Your task to perform on an android device: Empty the shopping cart on target. Search for razer blade on target, select the first entry, and add it to the cart. Image 0: 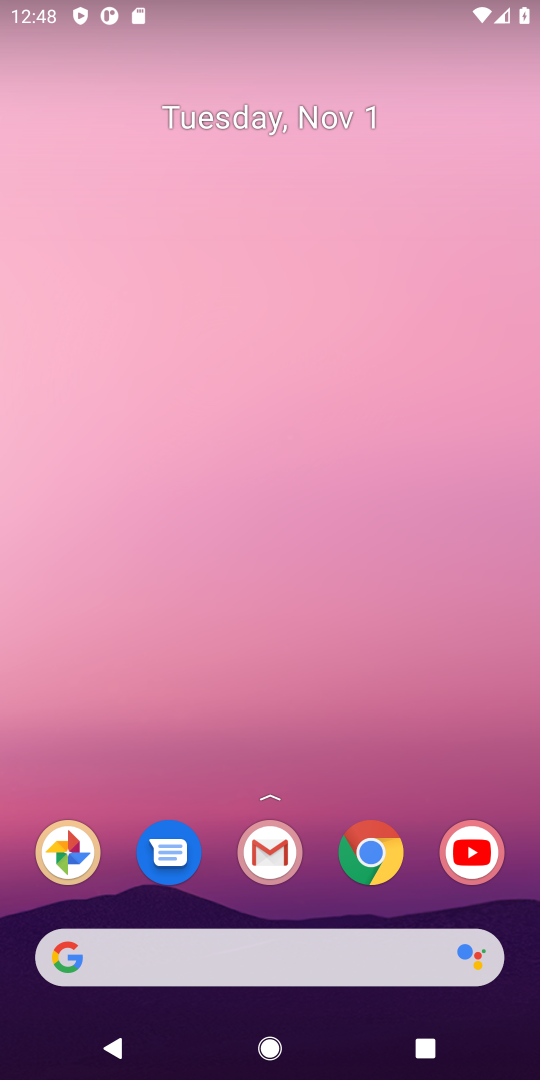
Step 0: click (377, 858)
Your task to perform on an android device: Empty the shopping cart on target. Search for razer blade on target, select the first entry, and add it to the cart. Image 1: 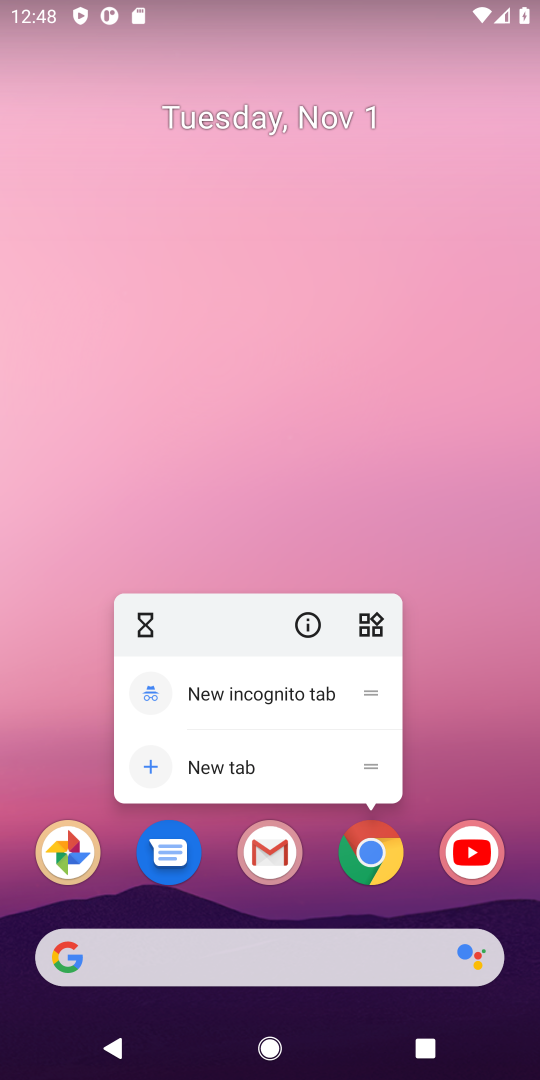
Step 1: click (386, 868)
Your task to perform on an android device: Empty the shopping cart on target. Search for razer blade on target, select the first entry, and add it to the cart. Image 2: 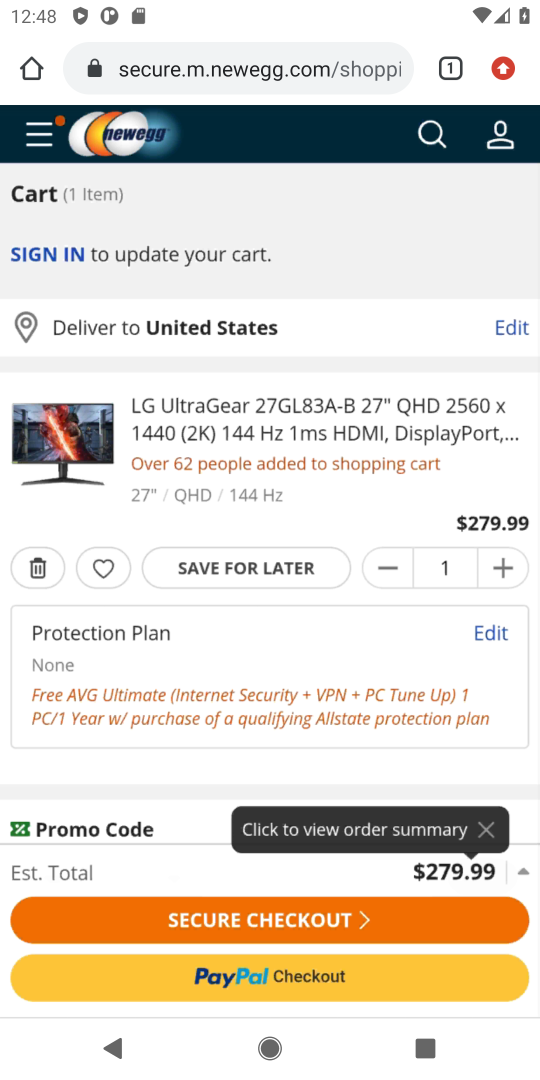
Step 2: click (293, 110)
Your task to perform on an android device: Empty the shopping cart on target. Search for razer blade on target, select the first entry, and add it to the cart. Image 3: 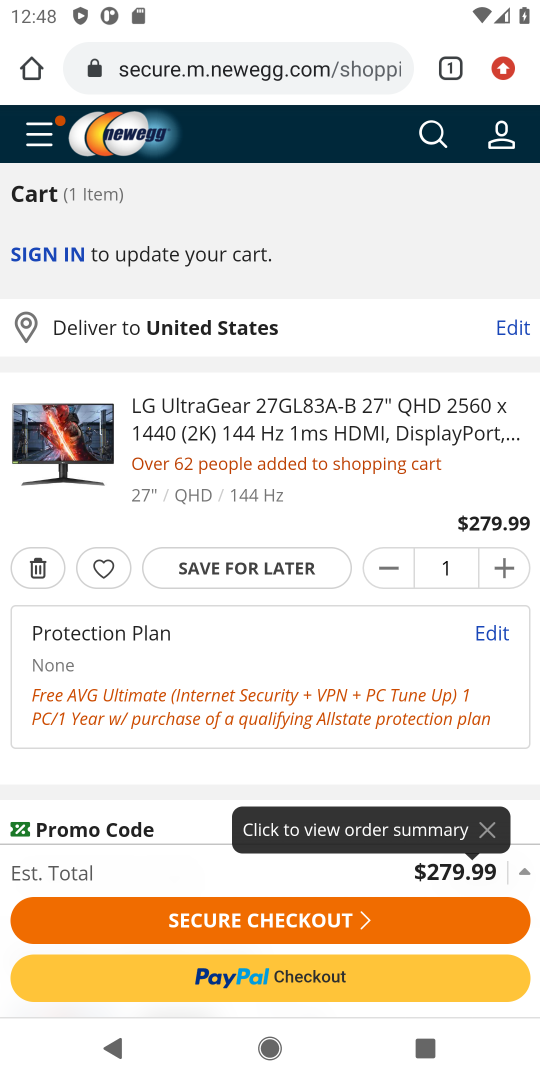
Step 3: click (235, 67)
Your task to perform on an android device: Empty the shopping cart on target. Search for razer blade on target, select the first entry, and add it to the cart. Image 4: 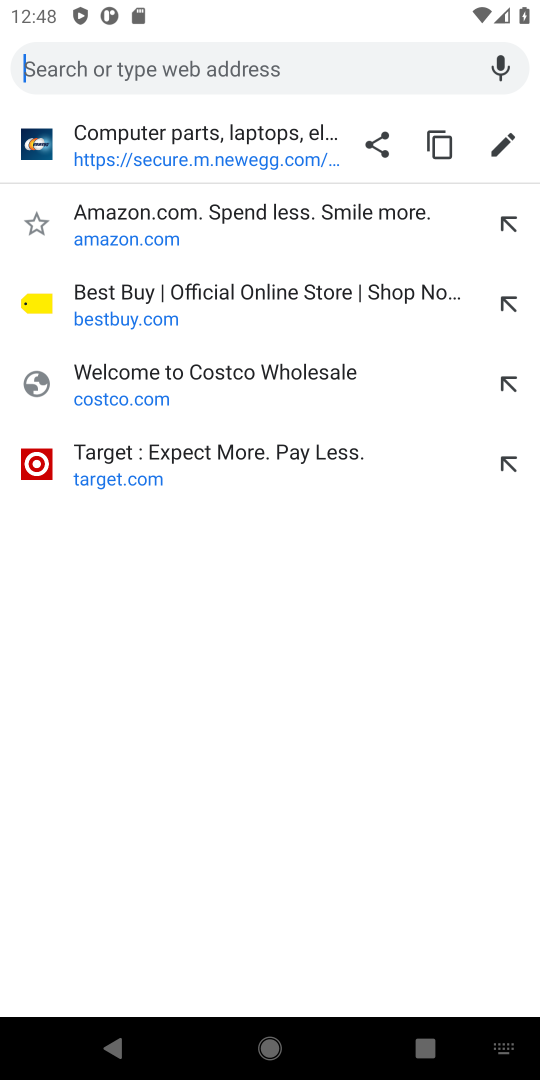
Step 4: type "target"
Your task to perform on an android device: Empty the shopping cart on target. Search for razer blade on target, select the first entry, and add it to the cart. Image 5: 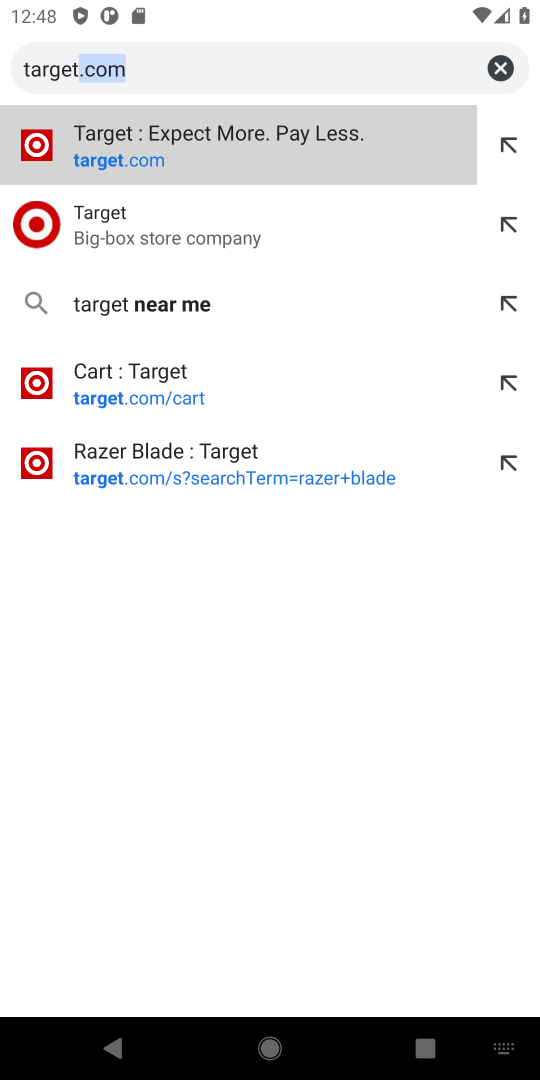
Step 5: press enter
Your task to perform on an android device: Empty the shopping cart on target. Search for razer blade on target, select the first entry, and add it to the cart. Image 6: 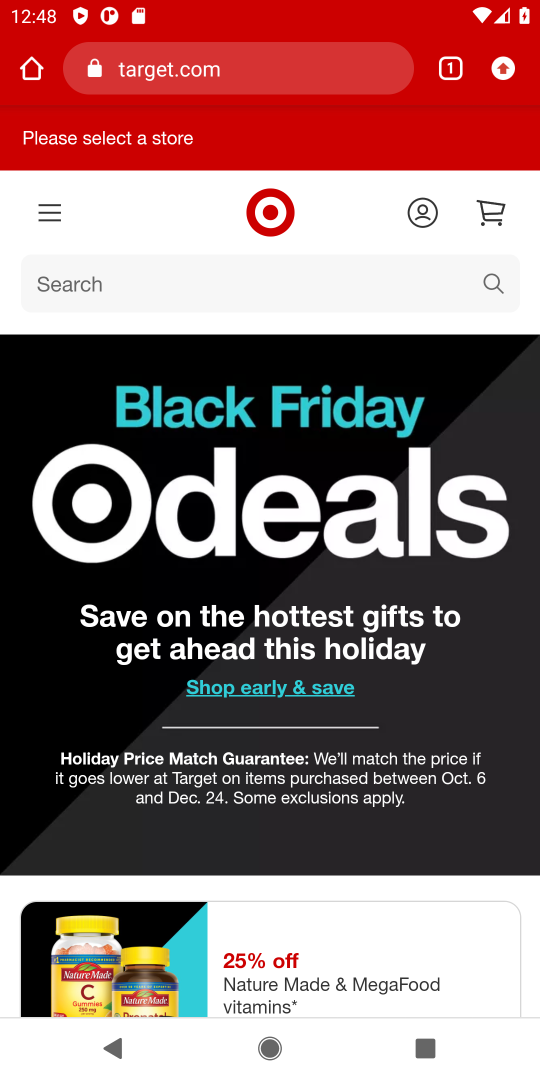
Step 6: drag from (353, 926) to (312, 314)
Your task to perform on an android device: Empty the shopping cart on target. Search for razer blade on target, select the first entry, and add it to the cart. Image 7: 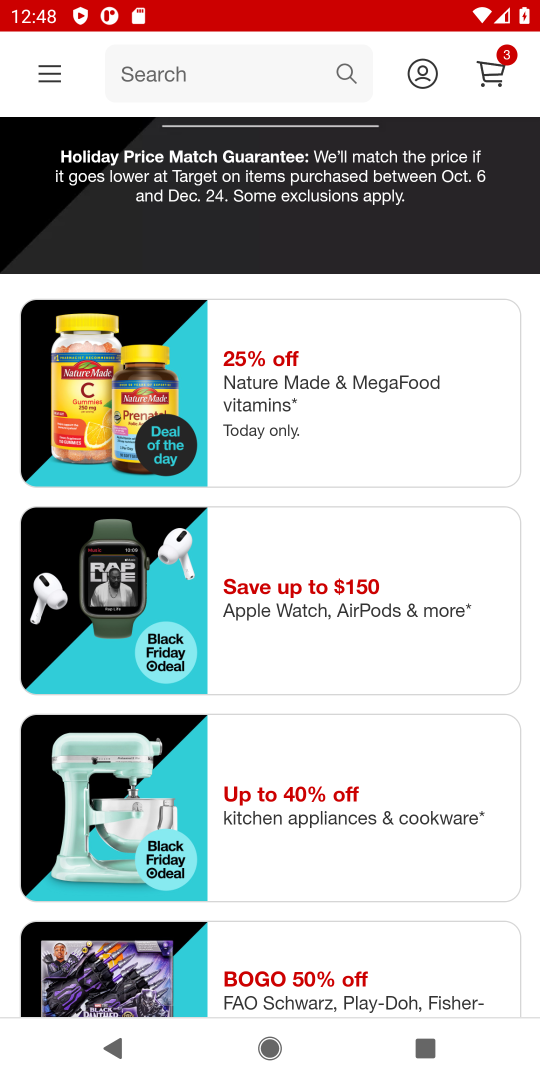
Step 7: click (495, 78)
Your task to perform on an android device: Empty the shopping cart on target. Search for razer blade on target, select the first entry, and add it to the cart. Image 8: 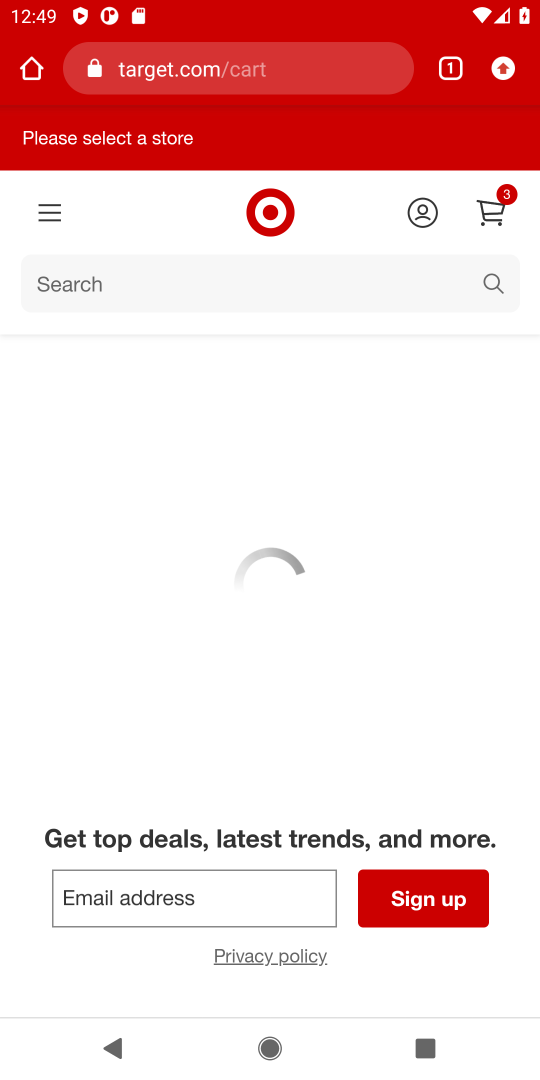
Step 8: drag from (417, 789) to (430, 656)
Your task to perform on an android device: Empty the shopping cart on target. Search for razer blade on target, select the first entry, and add it to the cart. Image 9: 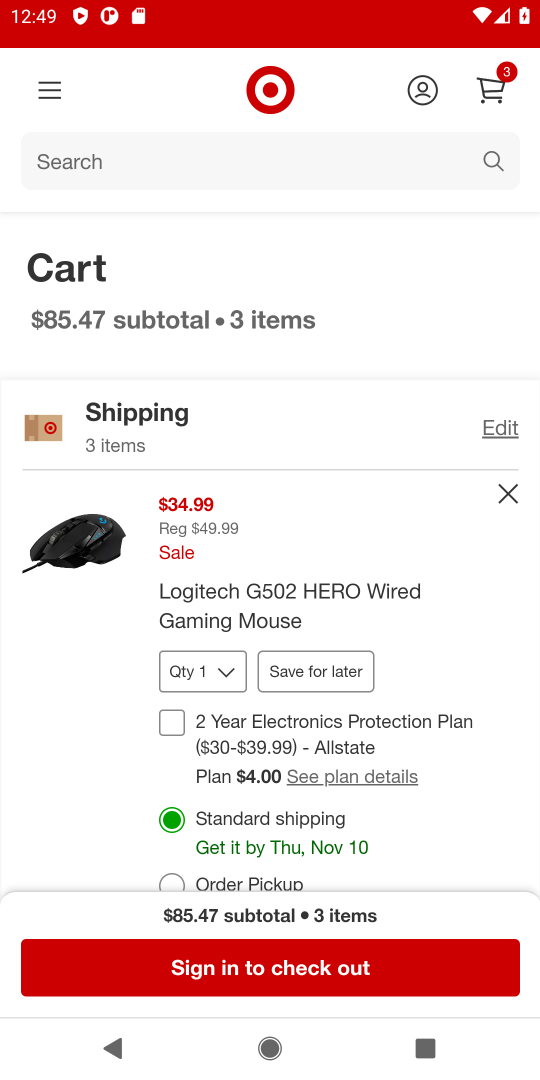
Step 9: drag from (346, 868) to (353, 817)
Your task to perform on an android device: Empty the shopping cart on target. Search for razer blade on target, select the first entry, and add it to the cart. Image 10: 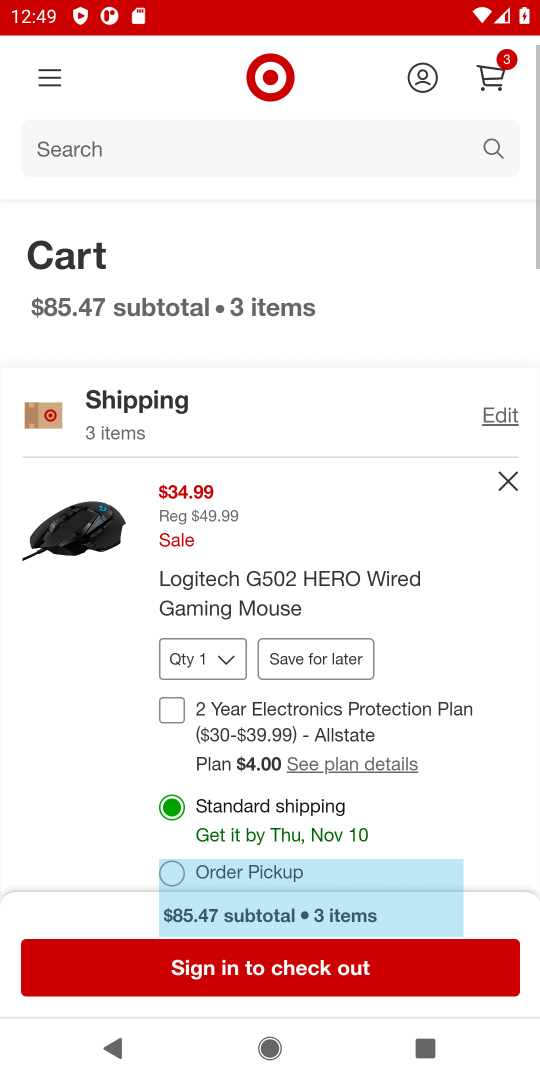
Step 10: drag from (356, 810) to (351, 584)
Your task to perform on an android device: Empty the shopping cart on target. Search for razer blade on target, select the first entry, and add it to the cart. Image 11: 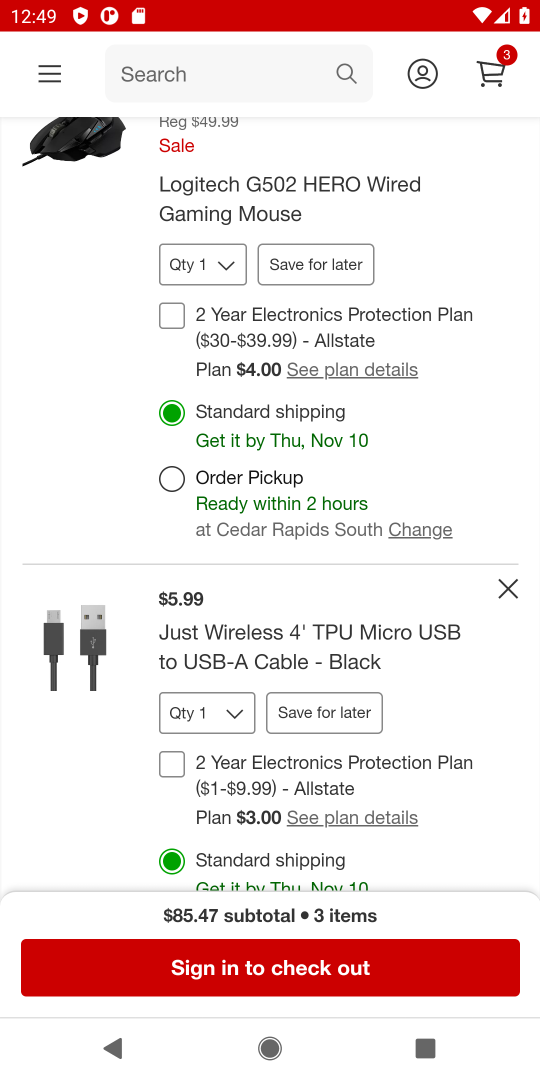
Step 11: click (501, 592)
Your task to perform on an android device: Empty the shopping cart on target. Search for razer blade on target, select the first entry, and add it to the cart. Image 12: 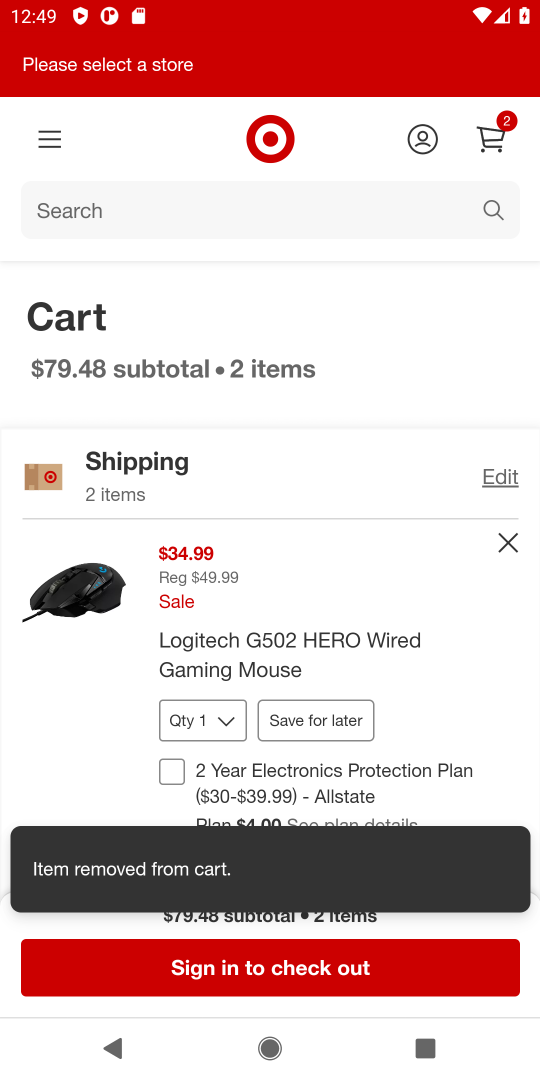
Step 12: click (501, 548)
Your task to perform on an android device: Empty the shopping cart on target. Search for razer blade on target, select the first entry, and add it to the cart. Image 13: 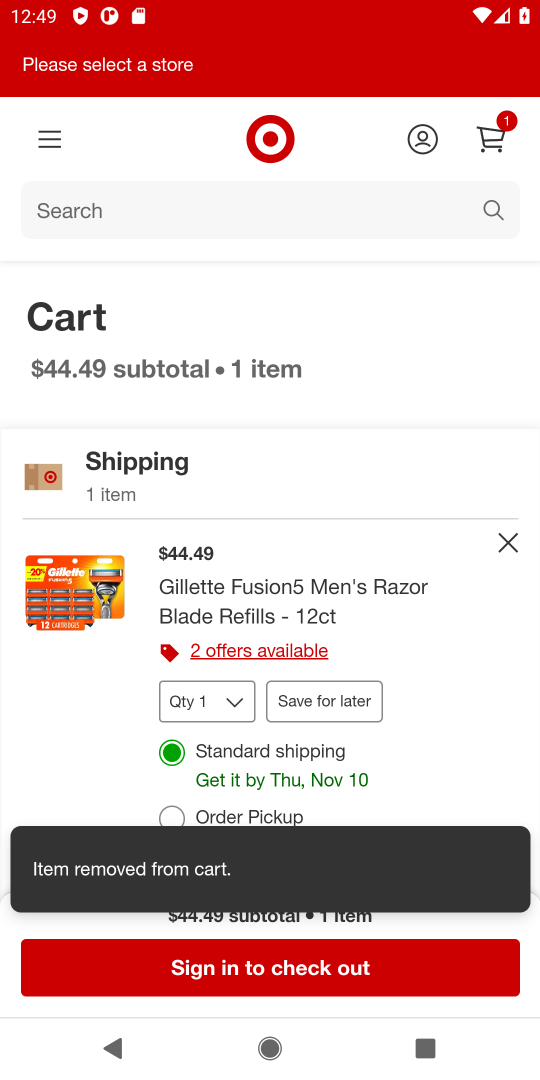
Step 13: click (501, 548)
Your task to perform on an android device: Empty the shopping cart on target. Search for razer blade on target, select the first entry, and add it to the cart. Image 14: 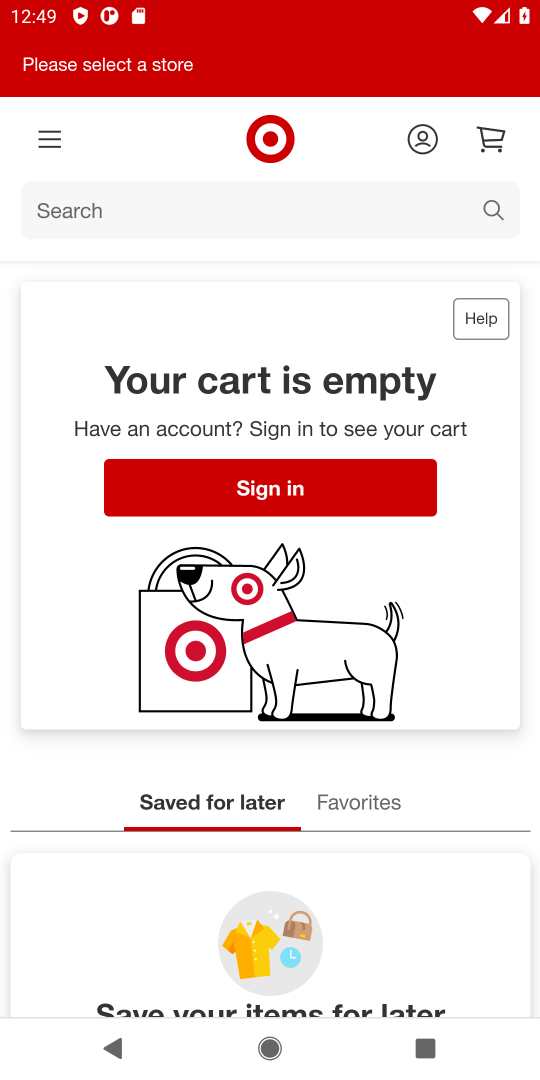
Step 14: click (364, 208)
Your task to perform on an android device: Empty the shopping cart on target. Search for razer blade on target, select the first entry, and add it to the cart. Image 15: 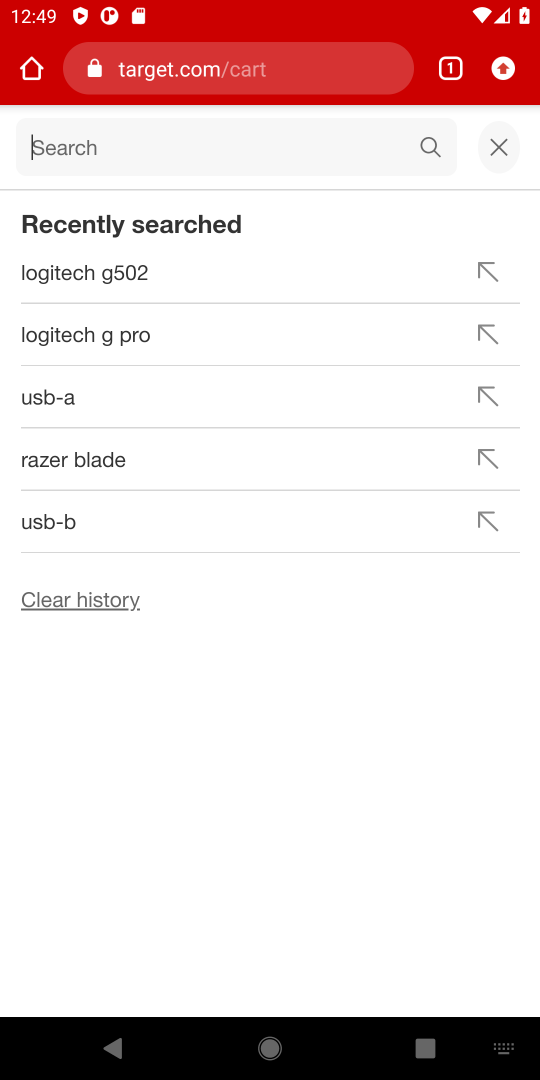
Step 15: type "razer blade"
Your task to perform on an android device: Empty the shopping cart on target. Search for razer blade on target, select the first entry, and add it to the cart. Image 16: 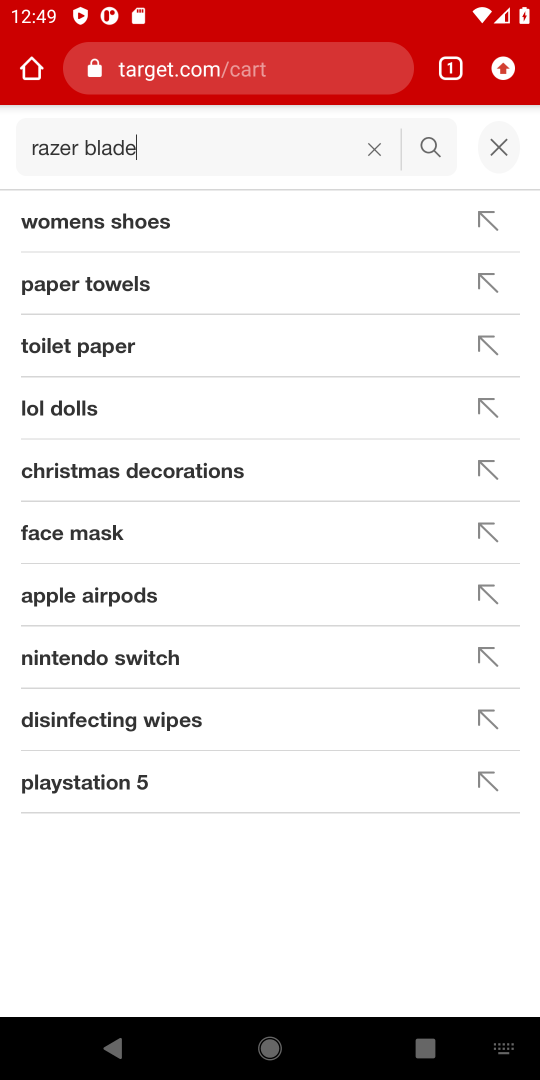
Step 16: type ""
Your task to perform on an android device: Empty the shopping cart on target. Search for razer blade on target, select the first entry, and add it to the cart. Image 17: 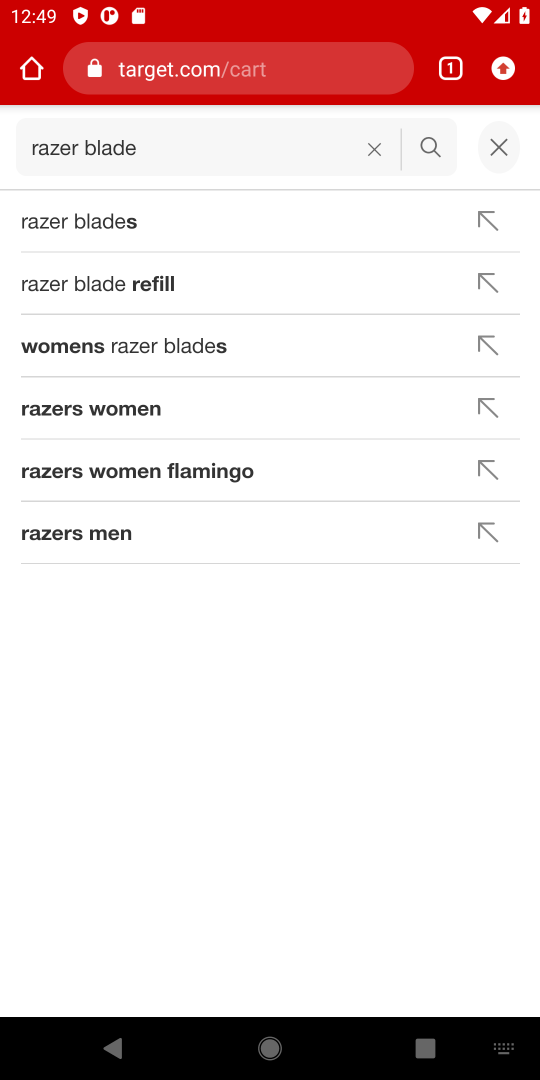
Step 17: press enter
Your task to perform on an android device: Empty the shopping cart on target. Search for razer blade on target, select the first entry, and add it to the cart. Image 18: 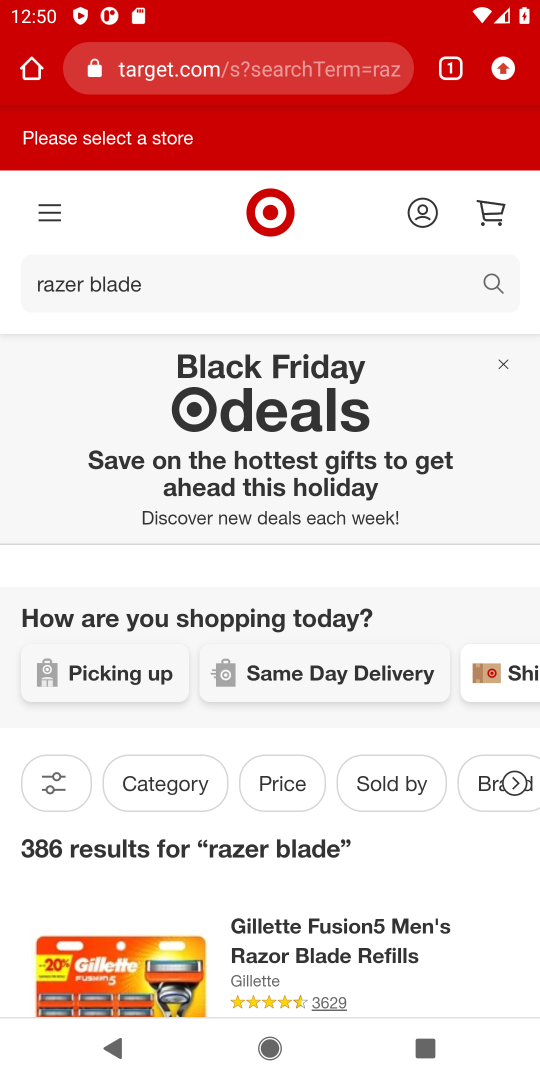
Step 18: drag from (292, 888) to (309, 487)
Your task to perform on an android device: Empty the shopping cart on target. Search for razer blade on target, select the first entry, and add it to the cart. Image 19: 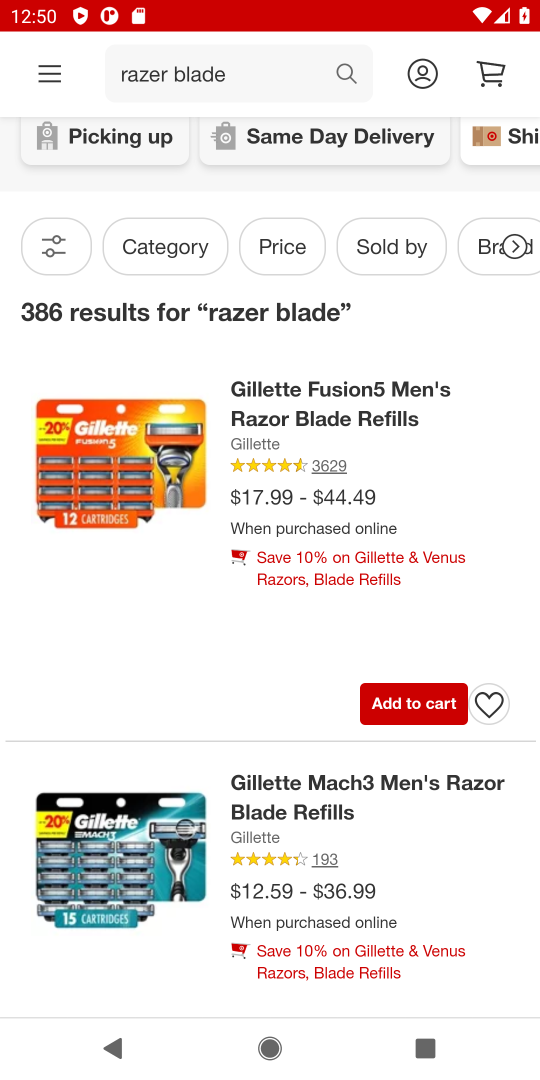
Step 19: click (376, 408)
Your task to perform on an android device: Empty the shopping cart on target. Search for razer blade on target, select the first entry, and add it to the cart. Image 20: 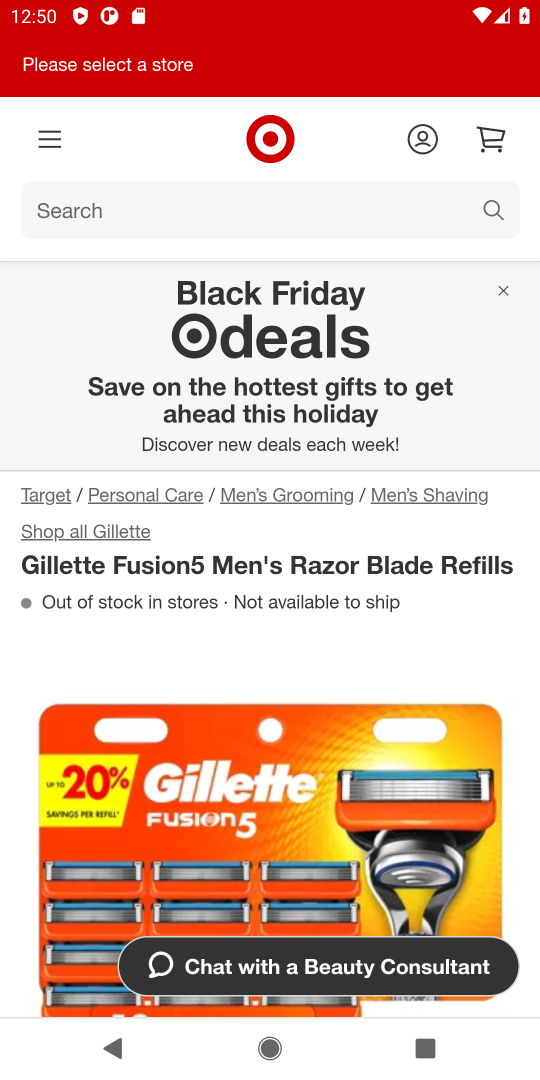
Step 20: drag from (342, 772) to (426, 322)
Your task to perform on an android device: Empty the shopping cart on target. Search for razer blade on target, select the first entry, and add it to the cart. Image 21: 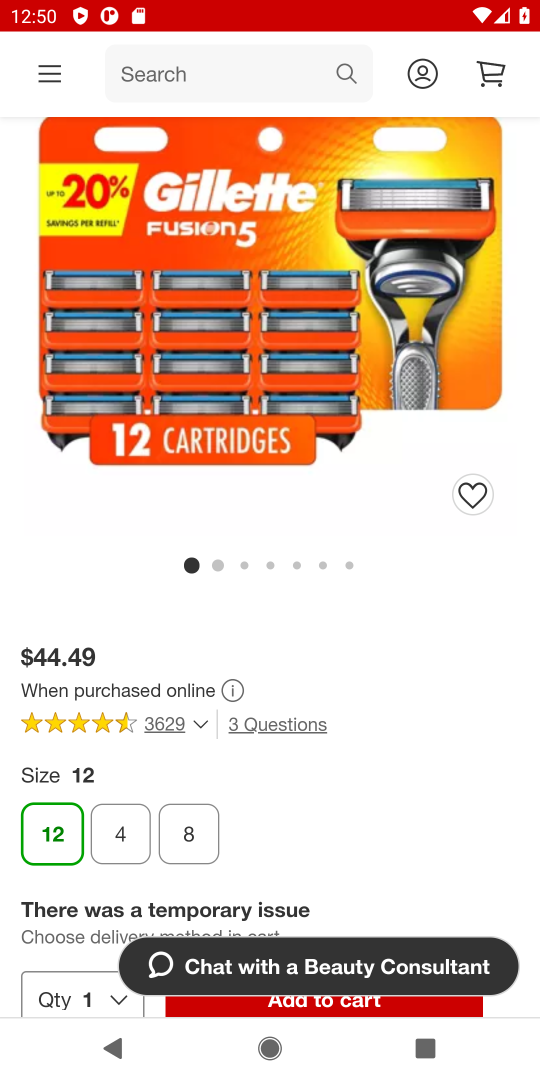
Step 21: drag from (427, 670) to (466, 486)
Your task to perform on an android device: Empty the shopping cart on target. Search for razer blade on target, select the first entry, and add it to the cart. Image 22: 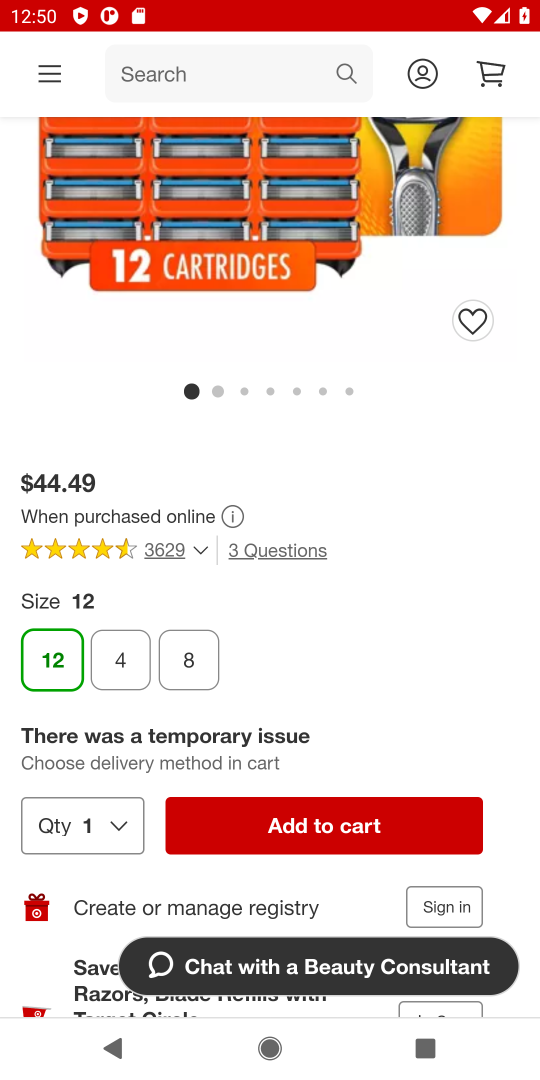
Step 22: click (338, 853)
Your task to perform on an android device: Empty the shopping cart on target. Search for razer blade on target, select the first entry, and add it to the cart. Image 23: 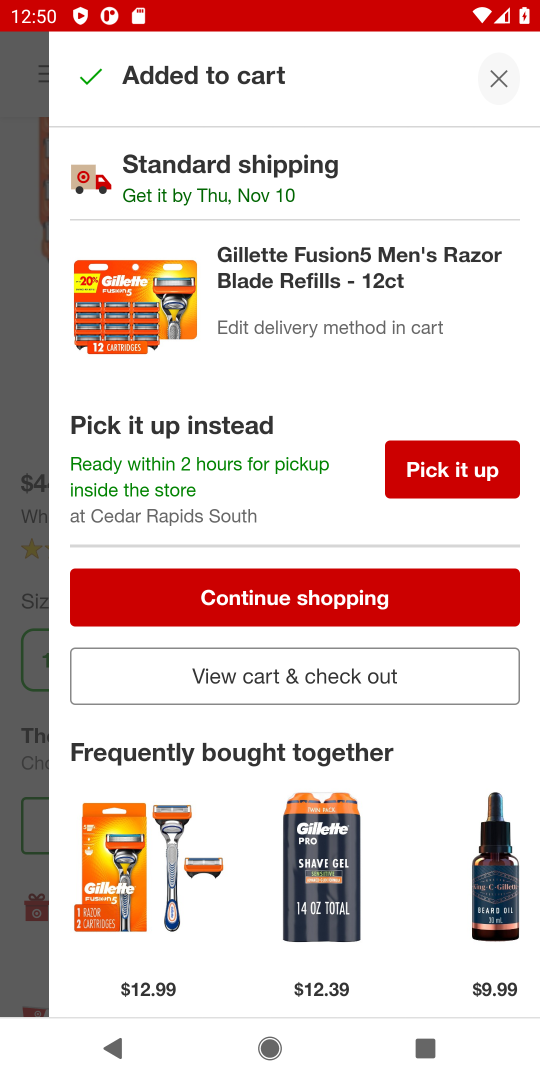
Step 23: click (354, 676)
Your task to perform on an android device: Empty the shopping cart on target. Search for razer blade on target, select the first entry, and add it to the cart. Image 24: 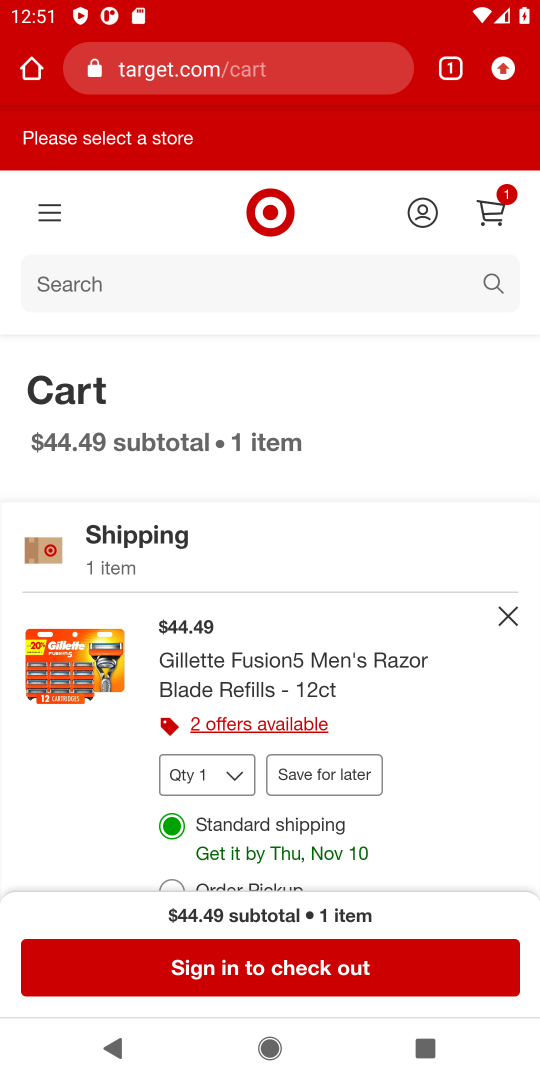
Step 24: task complete